Your task to perform on an android device: Is it going to rain tomorrow? Image 0: 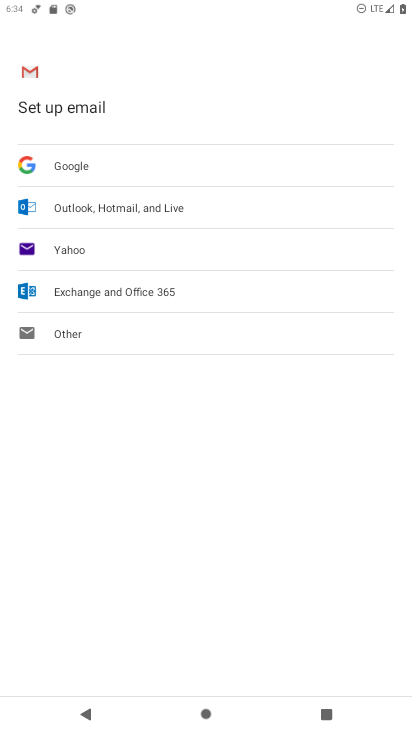
Step 0: press home button
Your task to perform on an android device: Is it going to rain tomorrow? Image 1: 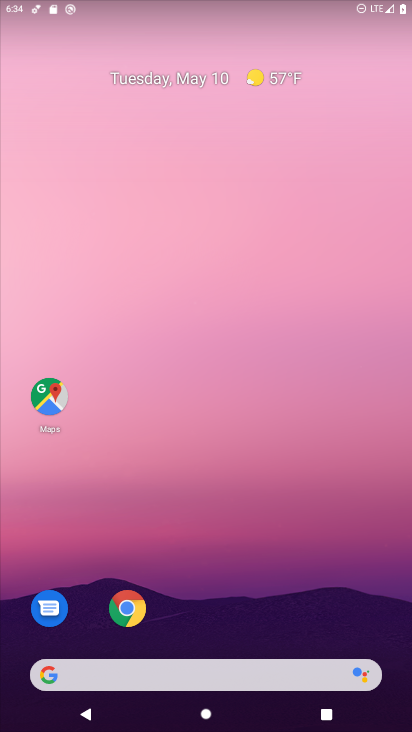
Step 1: click (159, 667)
Your task to perform on an android device: Is it going to rain tomorrow? Image 2: 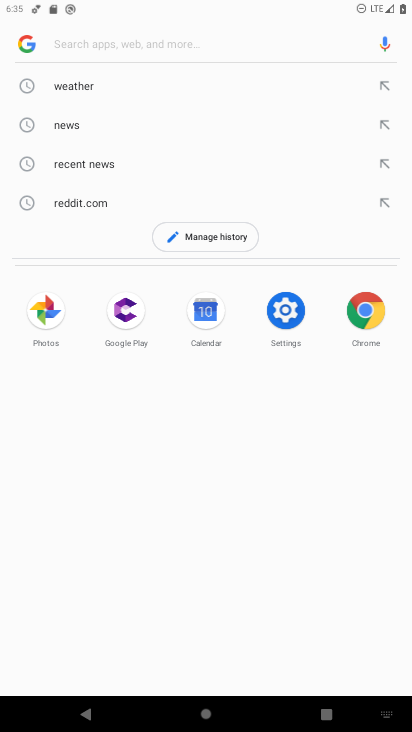
Step 2: type "Is it going to rain tomorrow?"
Your task to perform on an android device: Is it going to rain tomorrow? Image 3: 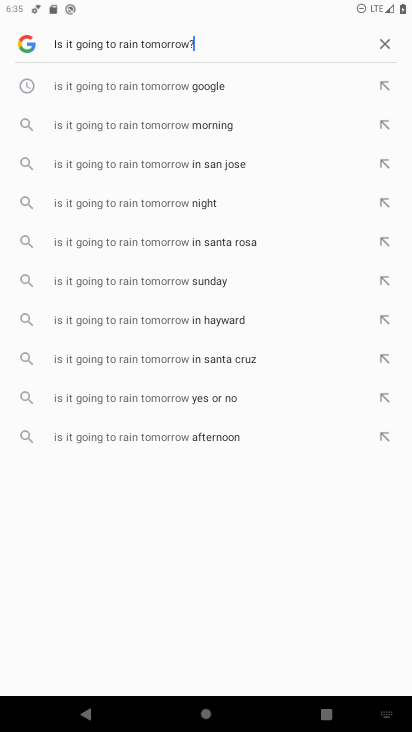
Step 3: click (236, 47)
Your task to perform on an android device: Is it going to rain tomorrow? Image 4: 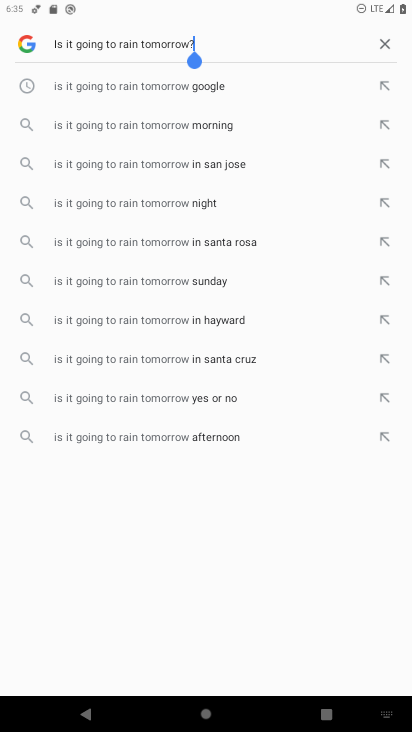
Step 4: click (235, 80)
Your task to perform on an android device: Is it going to rain tomorrow? Image 5: 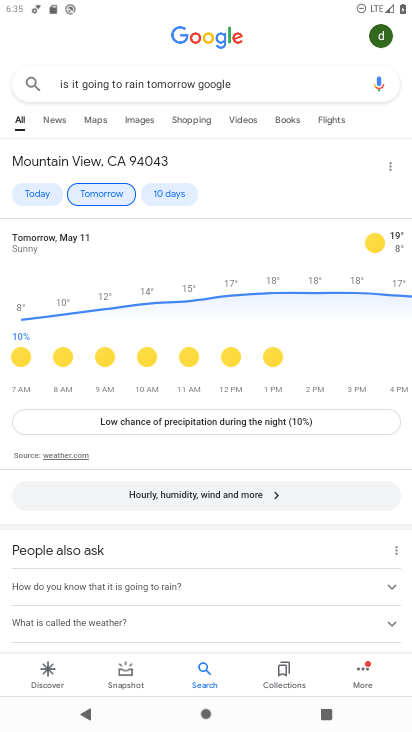
Step 5: task complete